Your task to perform on an android device: uninstall "Firefox Browser" Image 0: 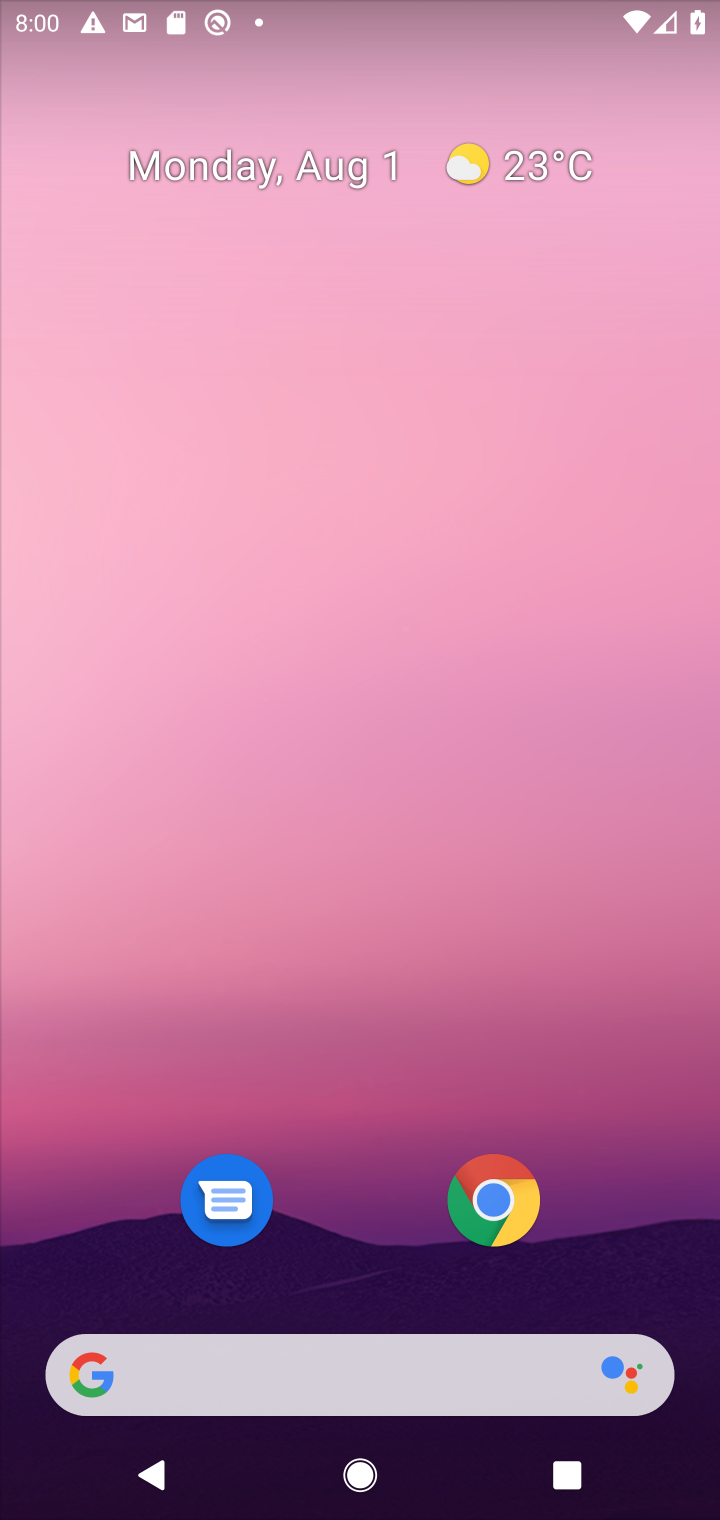
Step 0: press home button
Your task to perform on an android device: uninstall "Firefox Browser" Image 1: 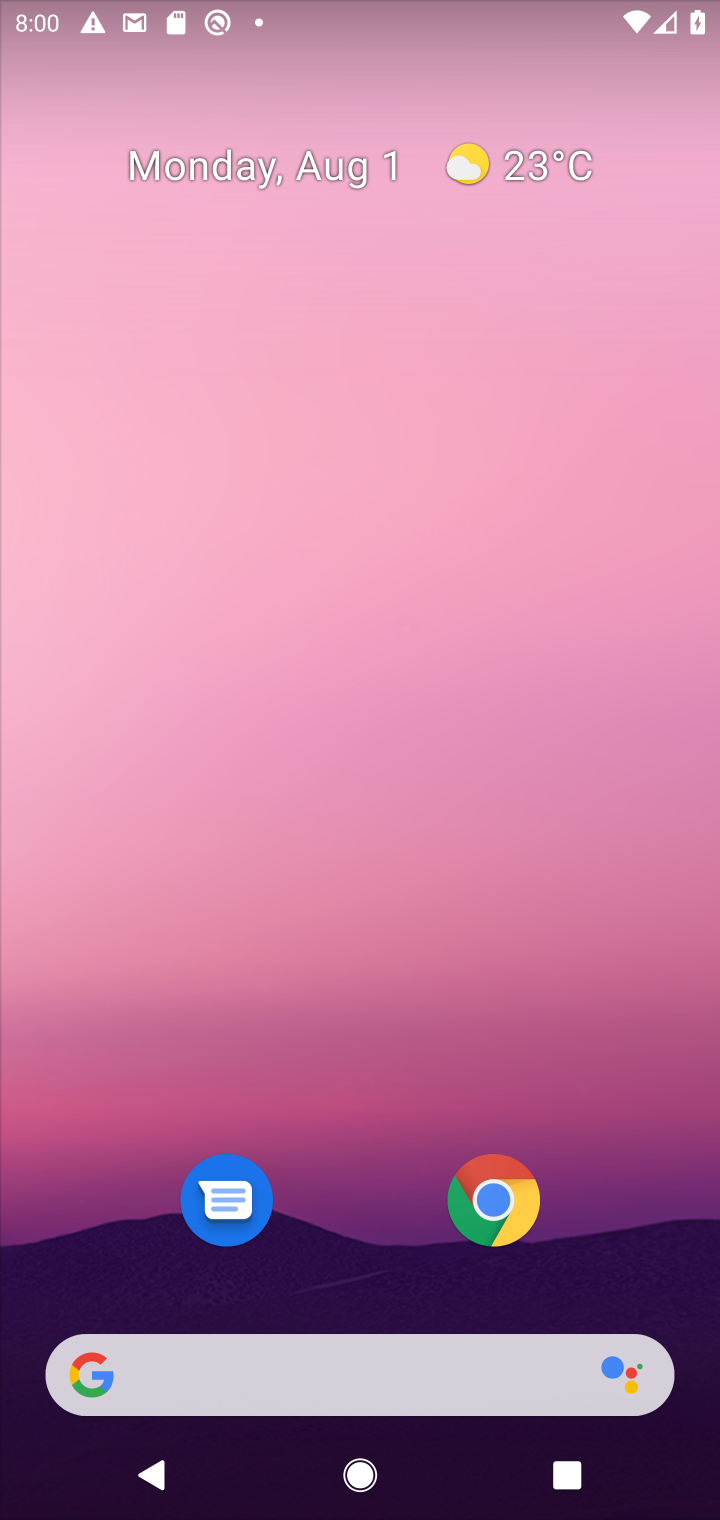
Step 1: drag from (521, 1206) to (698, 720)
Your task to perform on an android device: uninstall "Firefox Browser" Image 2: 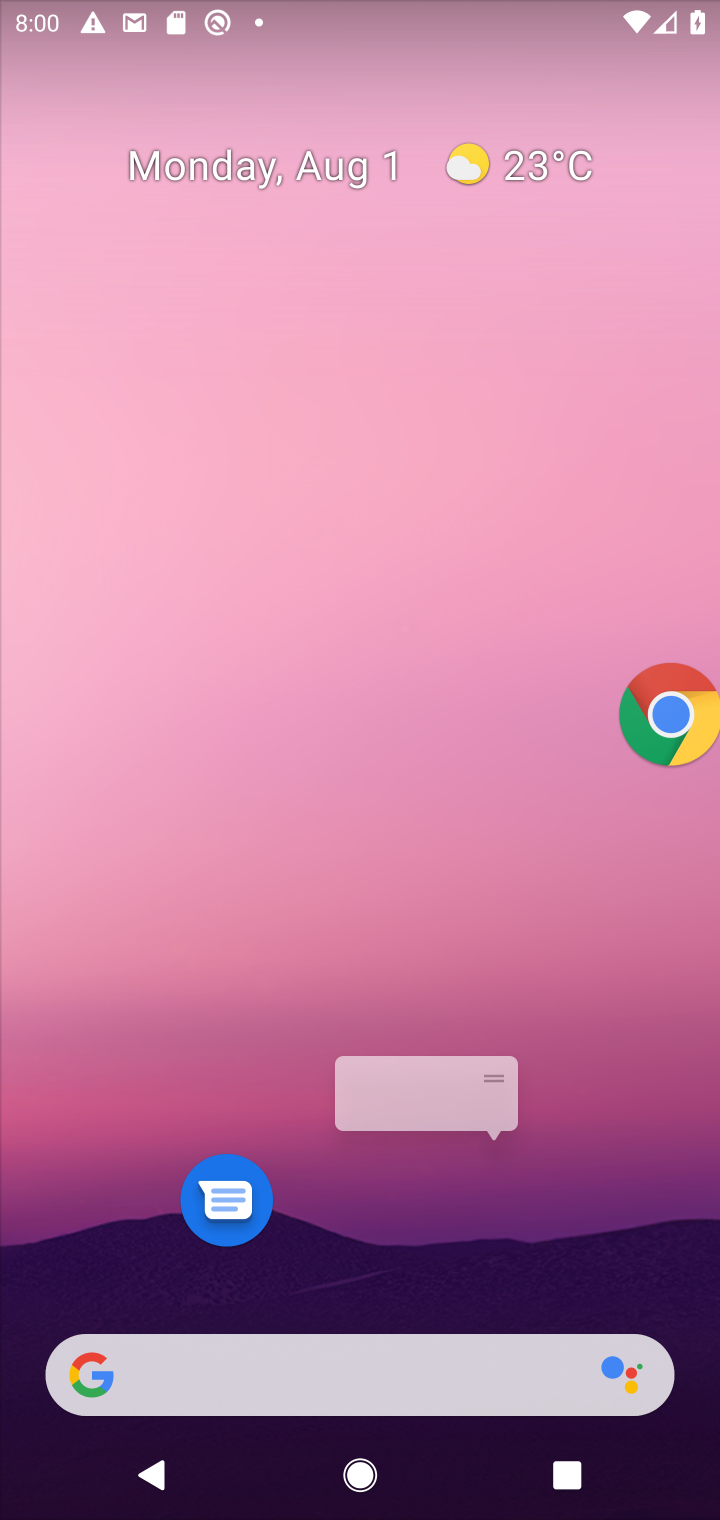
Step 2: drag from (338, 1117) to (449, 213)
Your task to perform on an android device: uninstall "Firefox Browser" Image 3: 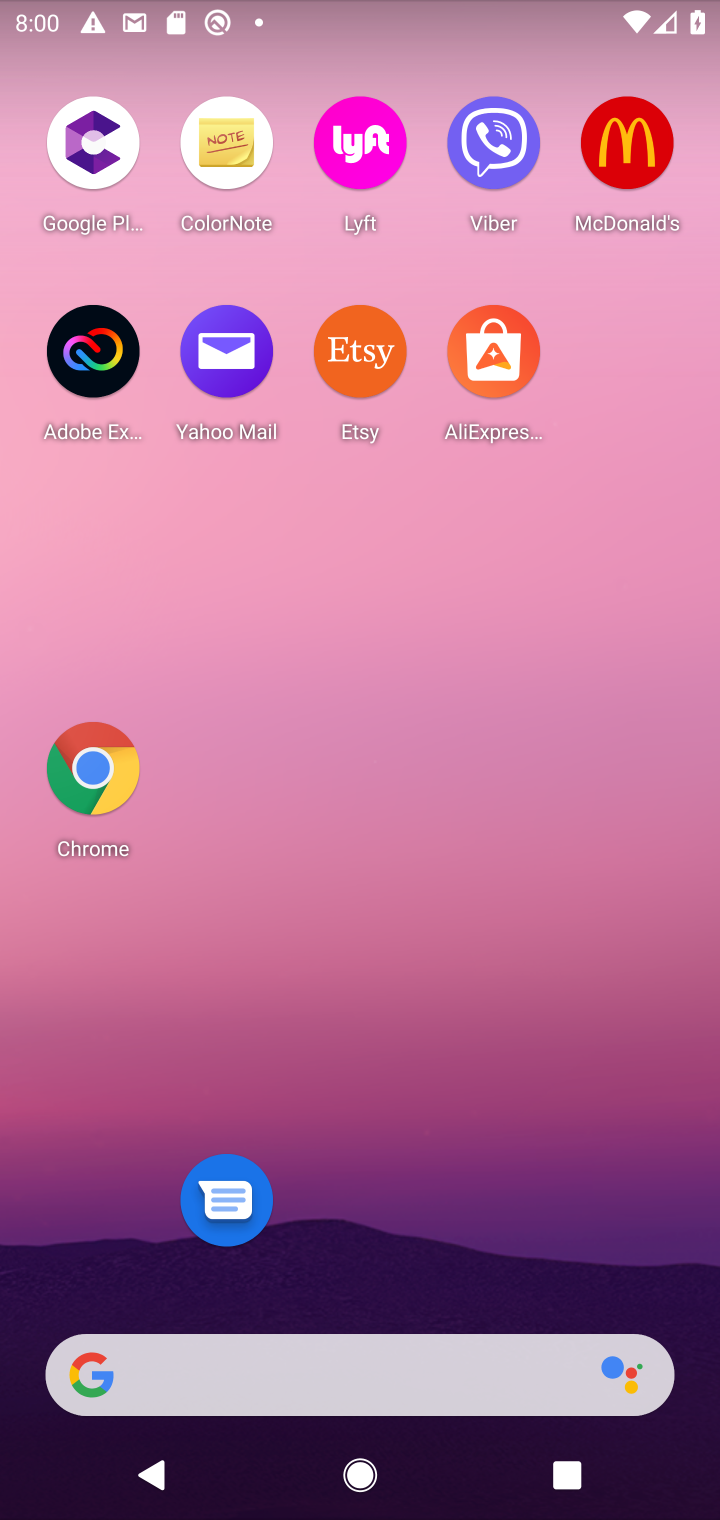
Step 3: drag from (68, 1014) to (691, 1014)
Your task to perform on an android device: uninstall "Firefox Browser" Image 4: 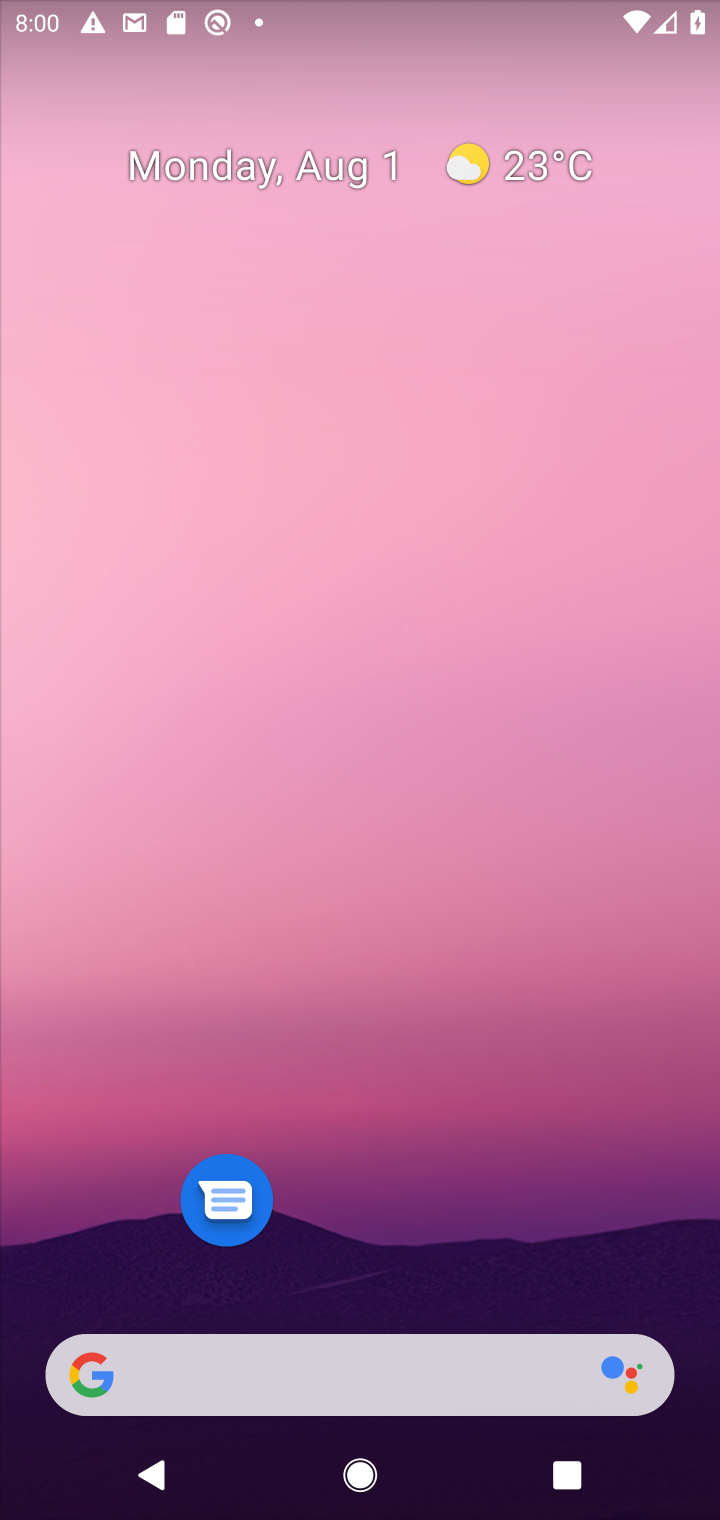
Step 4: drag from (360, 1298) to (391, 386)
Your task to perform on an android device: uninstall "Firefox Browser" Image 5: 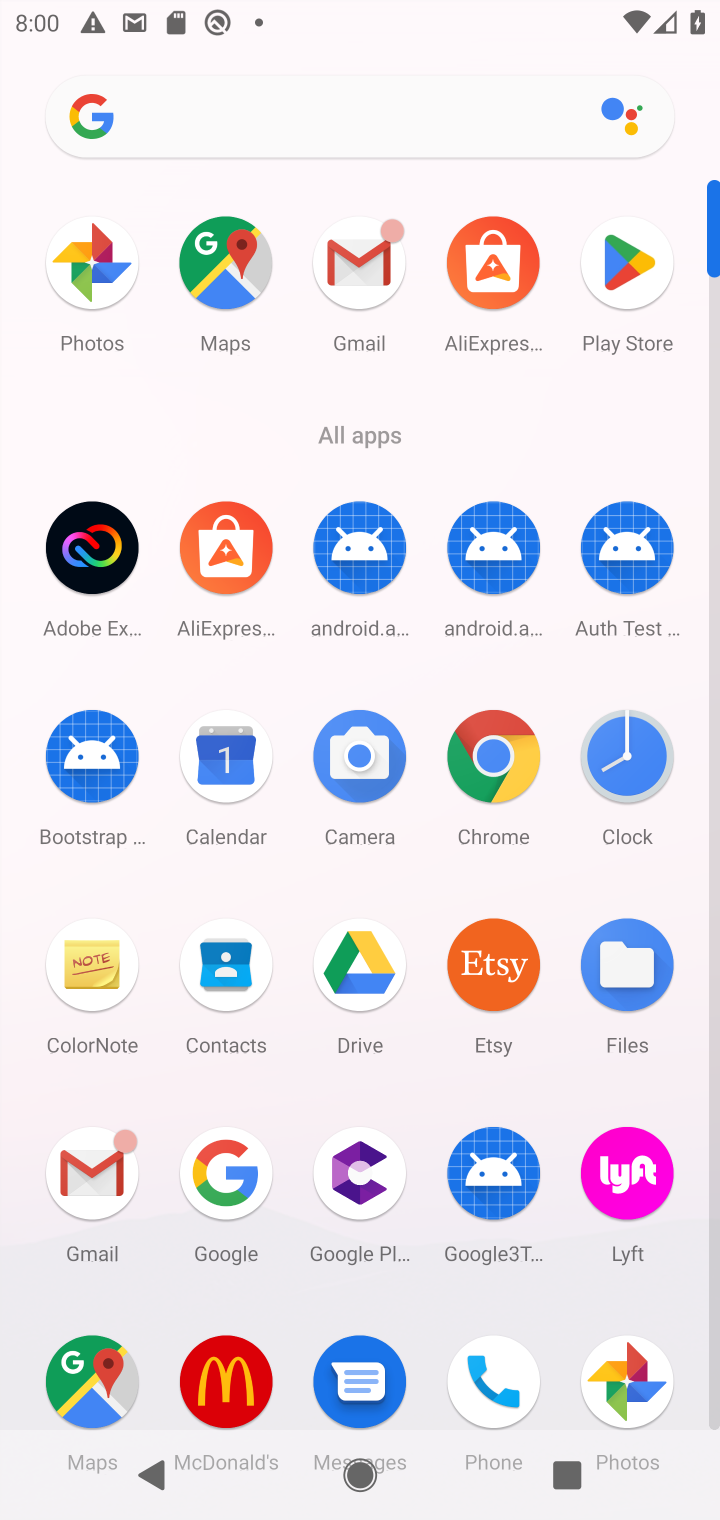
Step 5: click (613, 276)
Your task to perform on an android device: uninstall "Firefox Browser" Image 6: 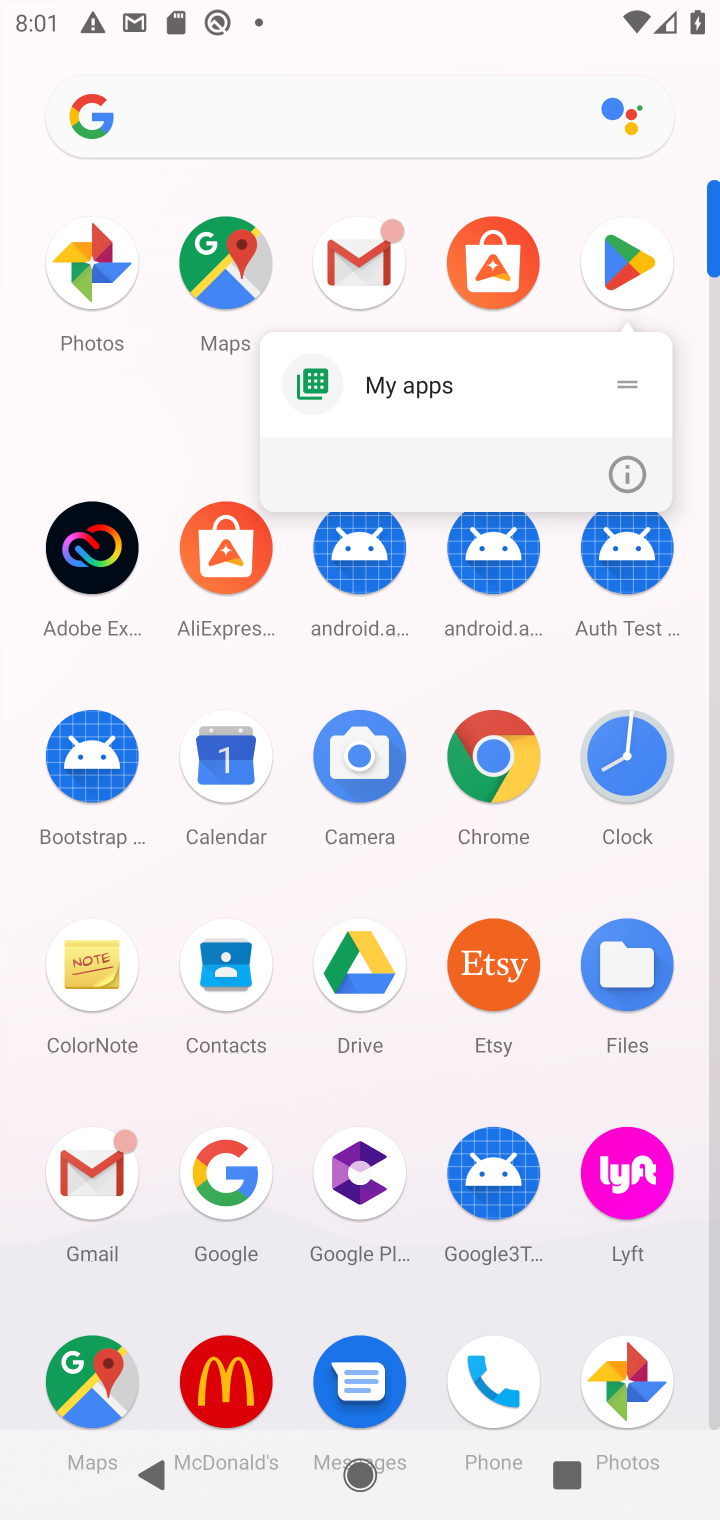
Step 6: click (629, 260)
Your task to perform on an android device: uninstall "Firefox Browser" Image 7: 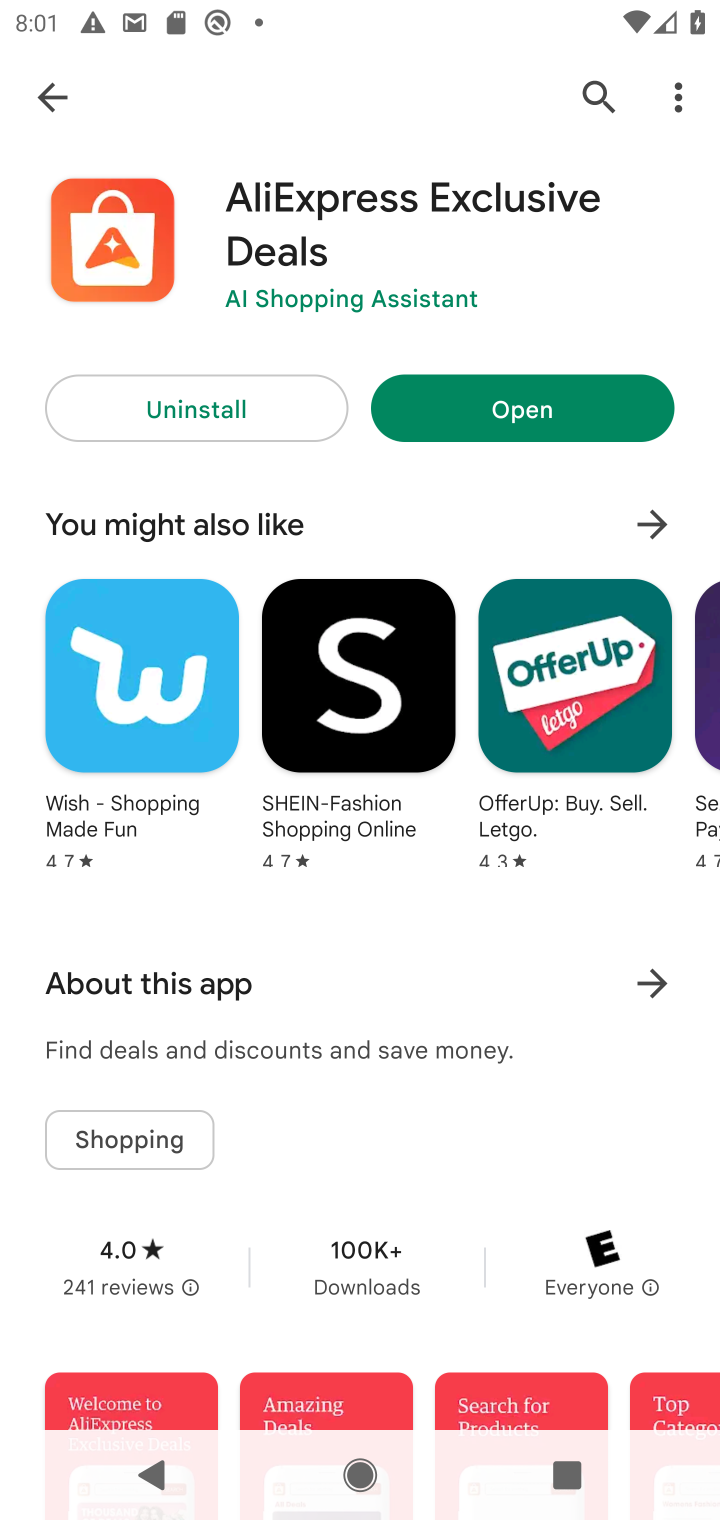
Step 7: click (593, 96)
Your task to perform on an android device: uninstall "Firefox Browser" Image 8: 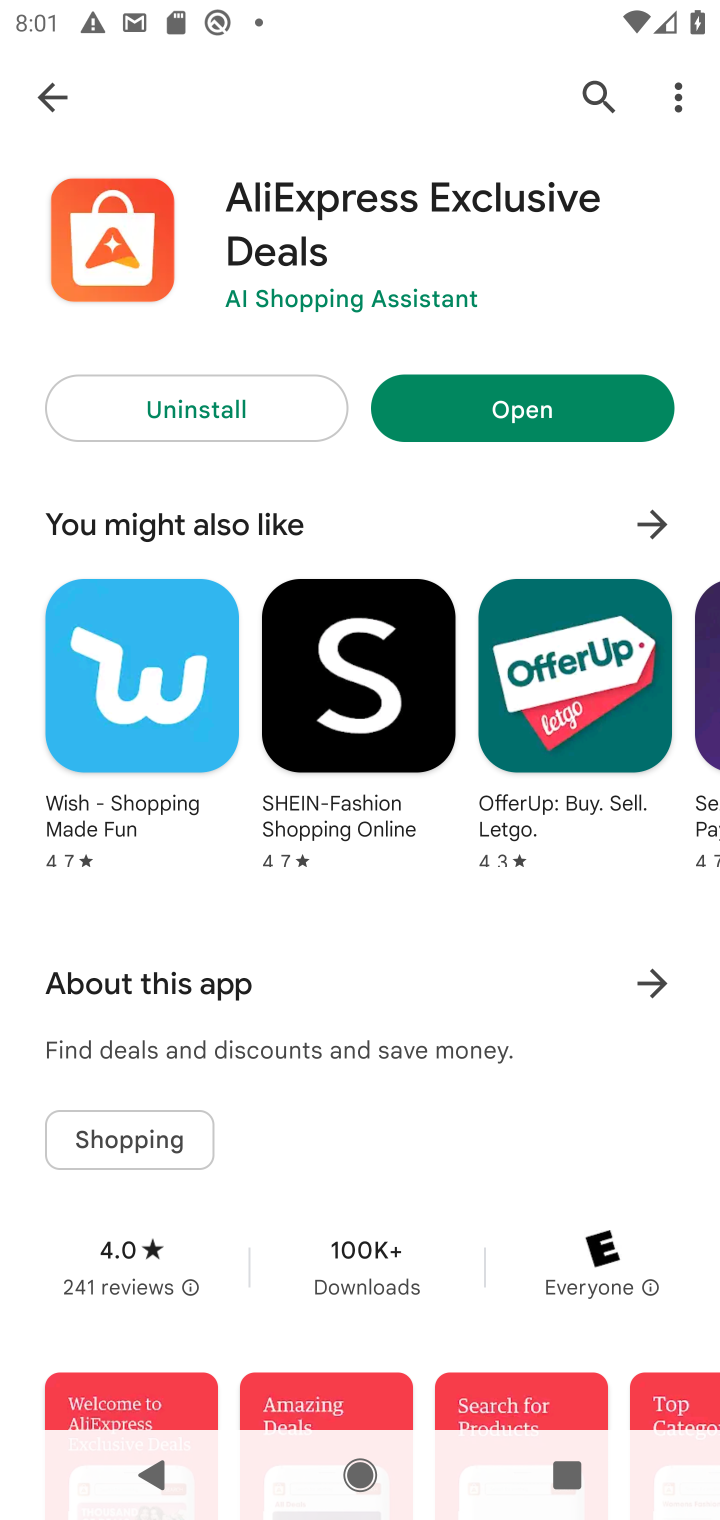
Step 8: click (592, 91)
Your task to perform on an android device: uninstall "Firefox Browser" Image 9: 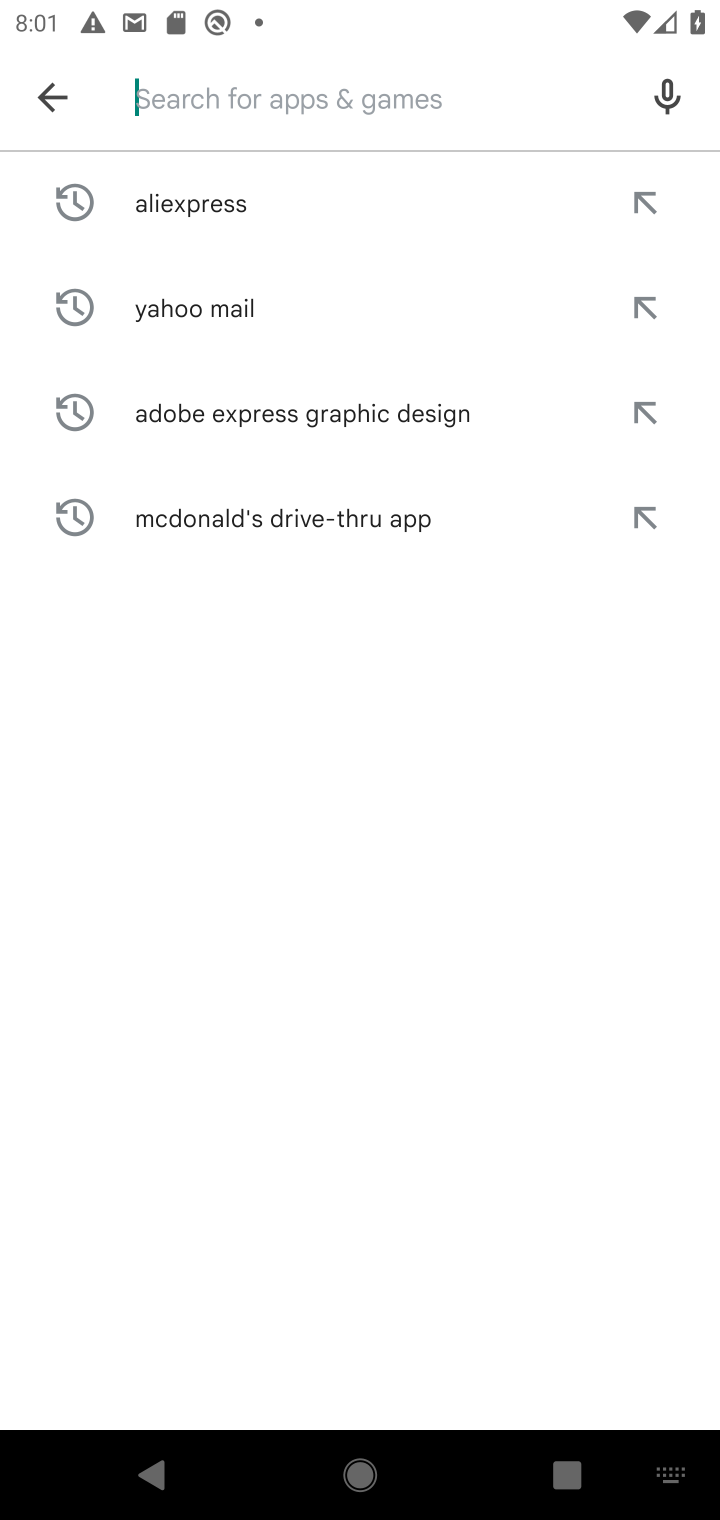
Step 9: type "Firefox Browser"
Your task to perform on an android device: uninstall "Firefox Browser" Image 10: 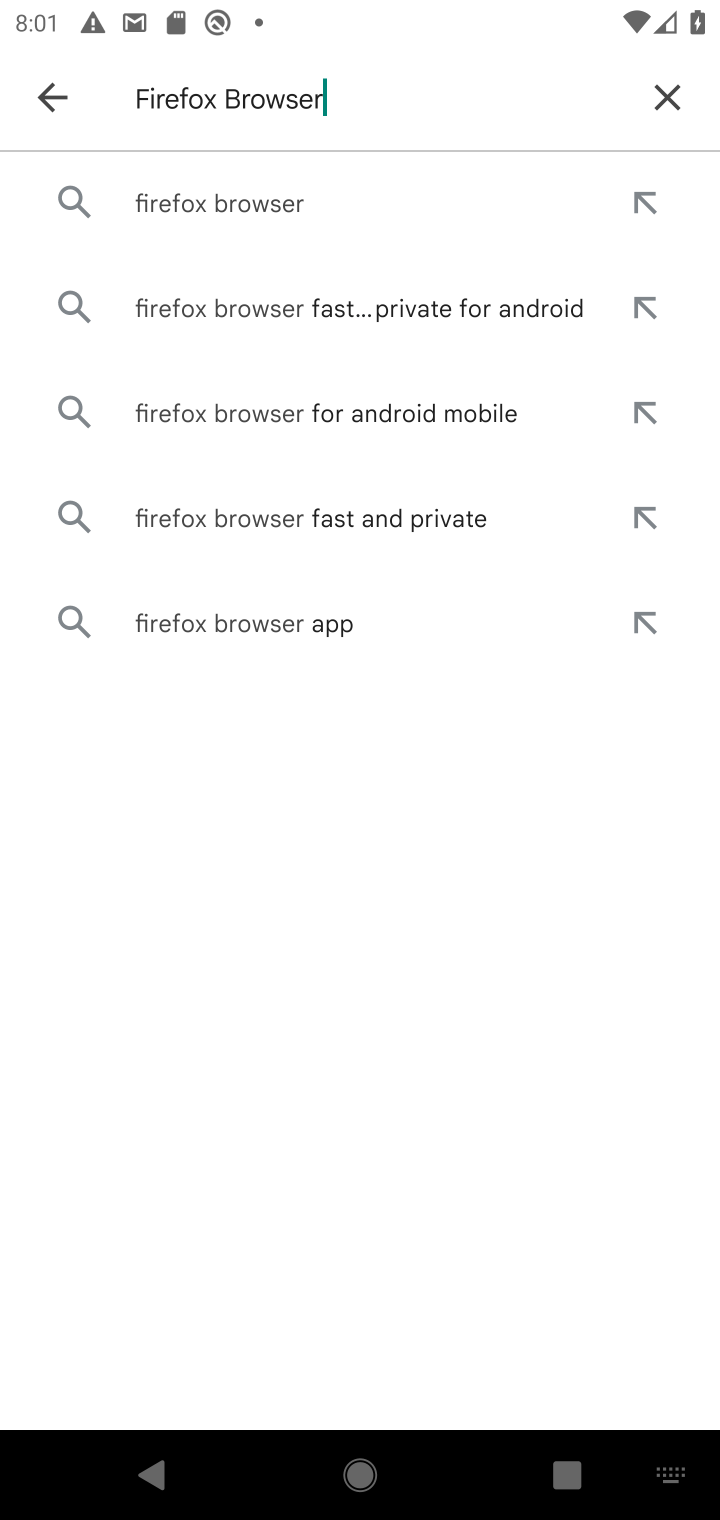
Step 10: click (192, 233)
Your task to perform on an android device: uninstall "Firefox Browser" Image 11: 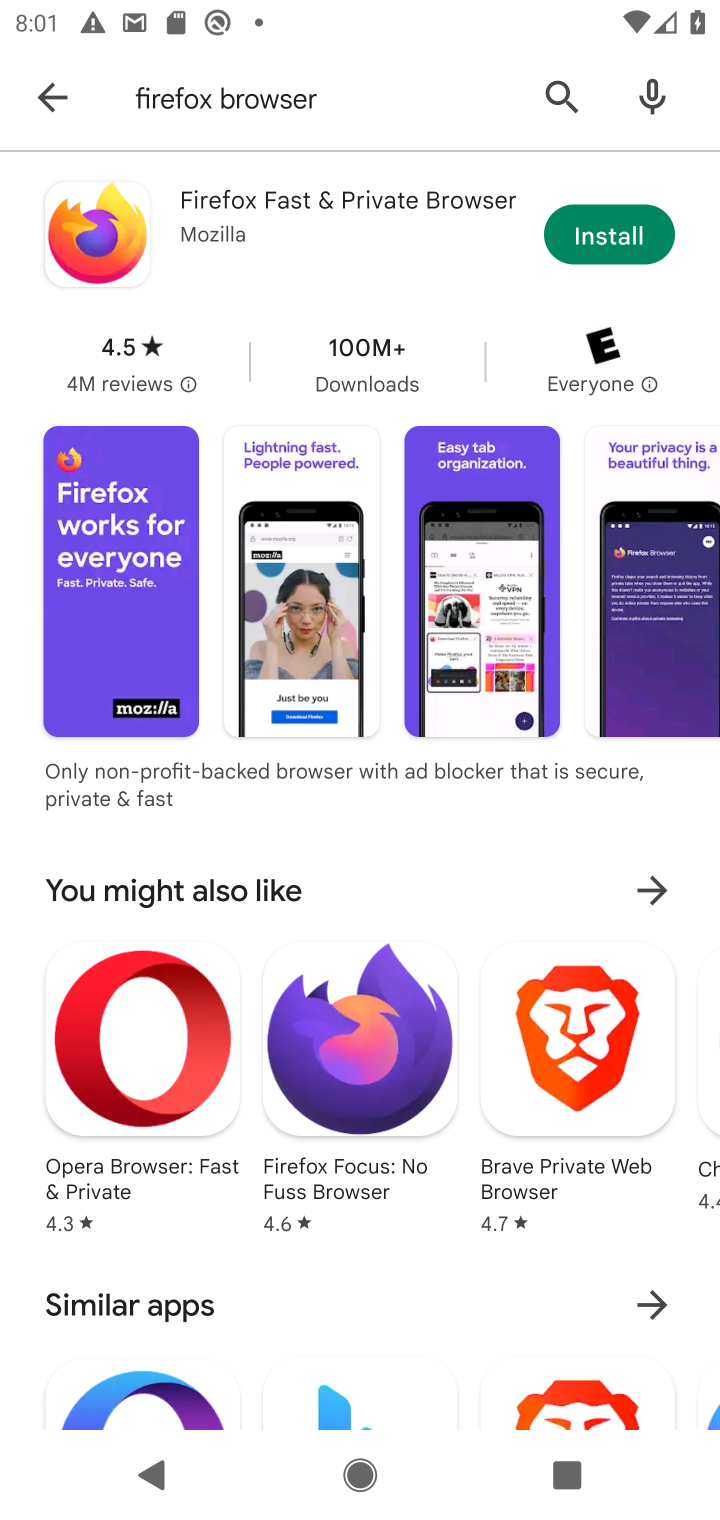
Step 11: task complete